Your task to perform on an android device: Search for "acer predator" on ebay, select the first entry, and add it to the cart. Image 0: 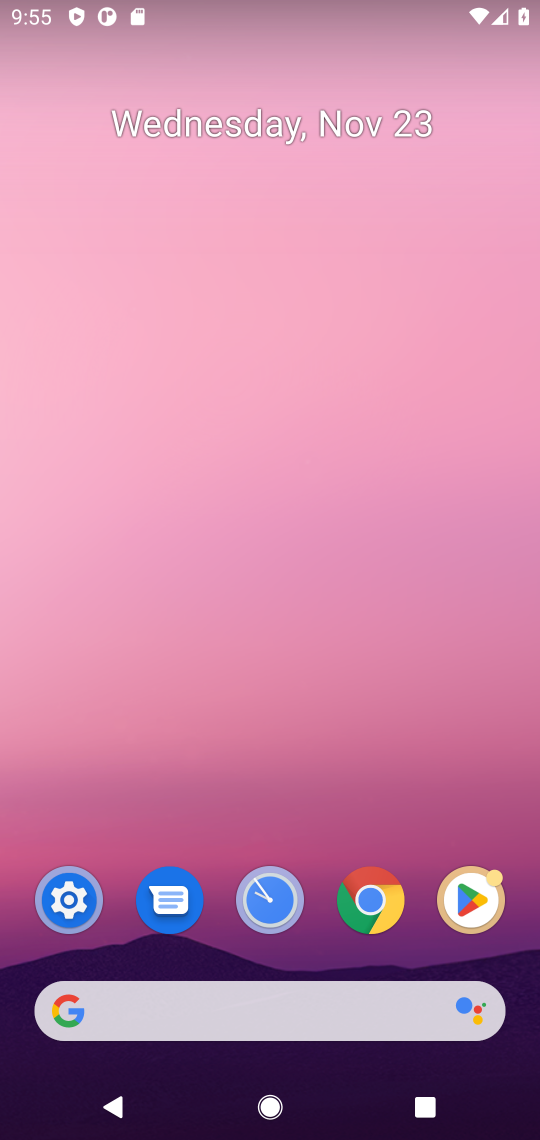
Step 0: click (286, 1007)
Your task to perform on an android device: Search for "acer predator" on ebay, select the first entry, and add it to the cart. Image 1: 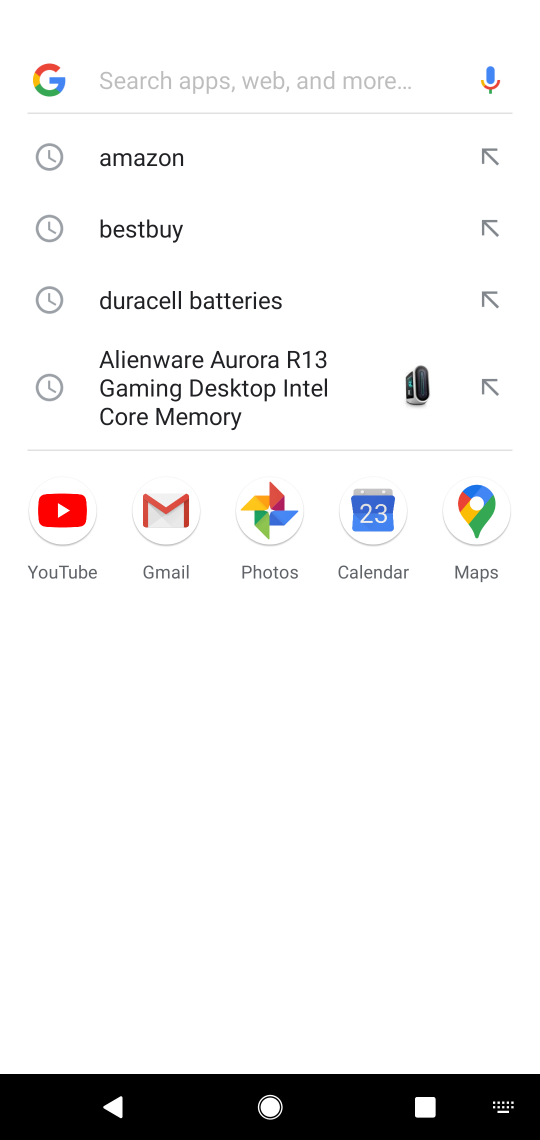
Step 1: type "ebay.com"
Your task to perform on an android device: Search for "acer predator" on ebay, select the first entry, and add it to the cart. Image 2: 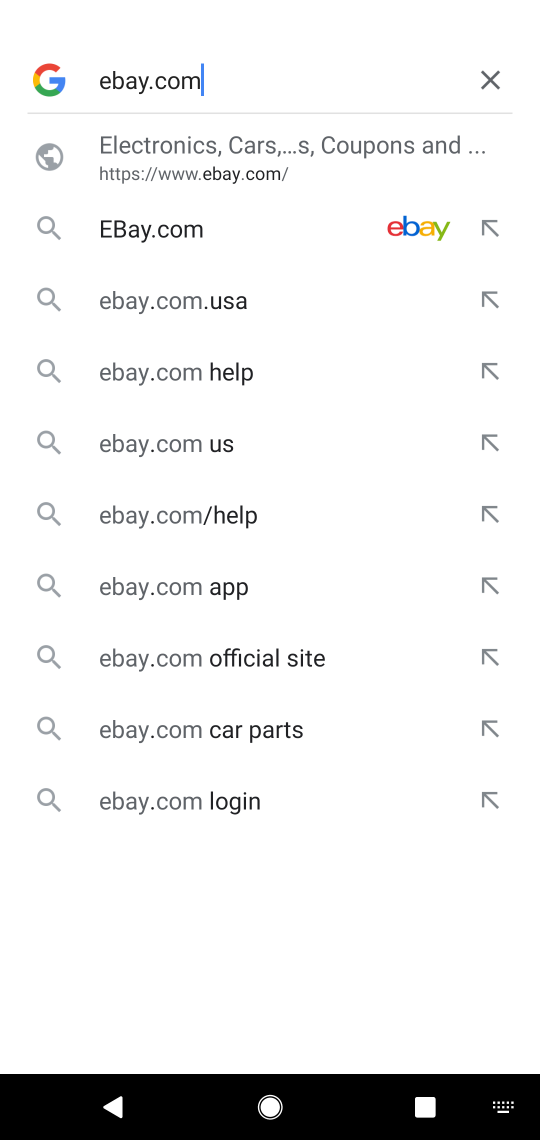
Step 2: click (205, 176)
Your task to perform on an android device: Search for "acer predator" on ebay, select the first entry, and add it to the cart. Image 3: 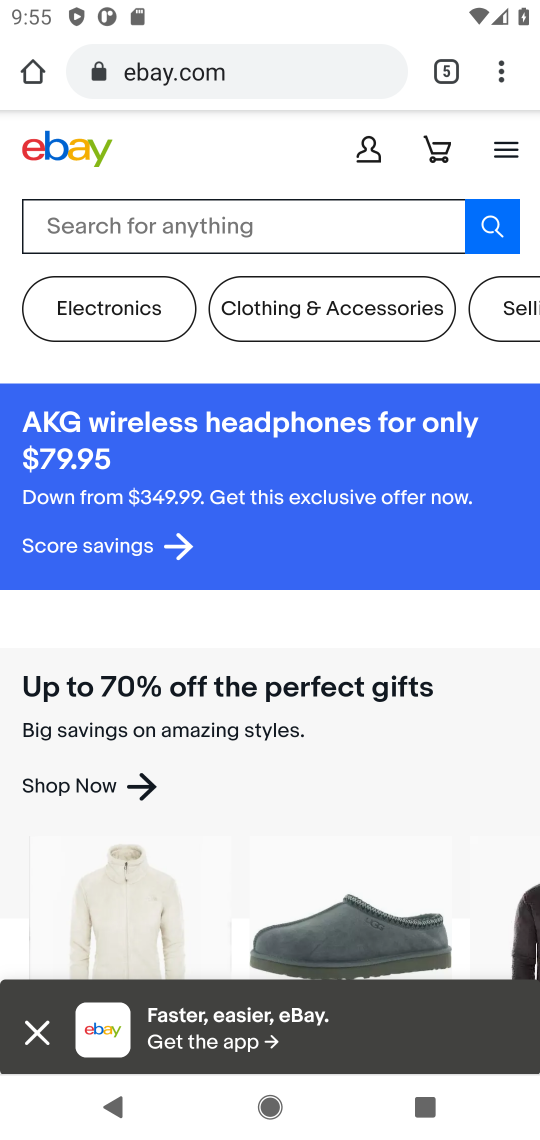
Step 3: click (182, 238)
Your task to perform on an android device: Search for "acer predator" on ebay, select the first entry, and add it to the cart. Image 4: 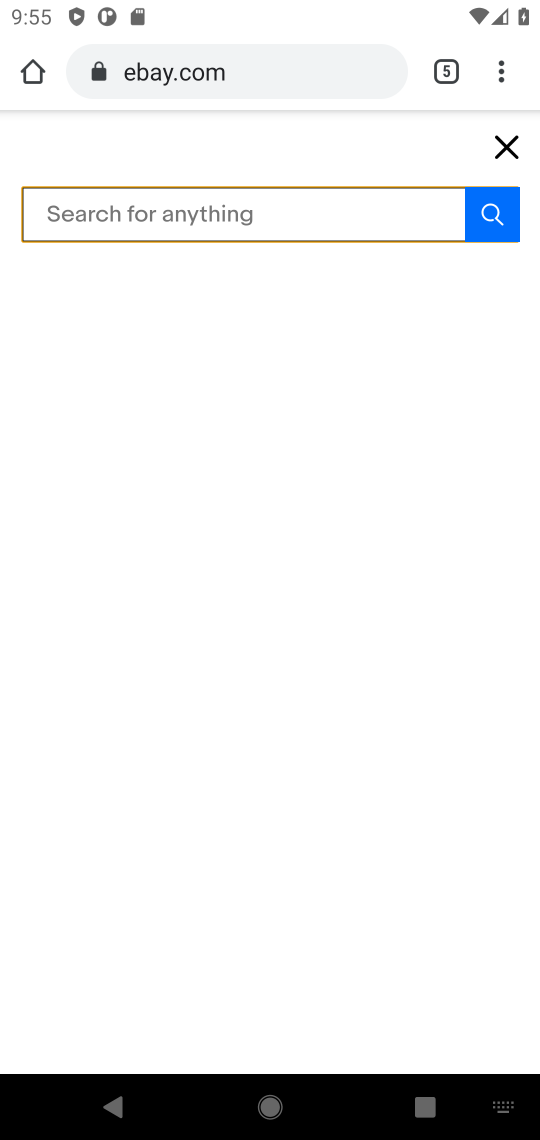
Step 4: type "acer predator"
Your task to perform on an android device: Search for "acer predator" on ebay, select the first entry, and add it to the cart. Image 5: 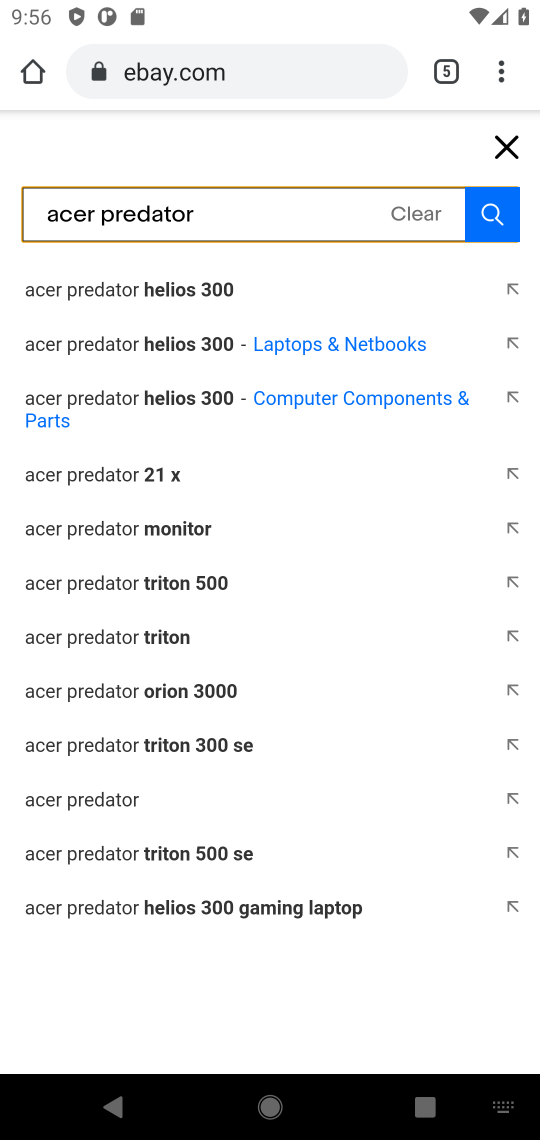
Step 5: click (211, 291)
Your task to perform on an android device: Search for "acer predator" on ebay, select the first entry, and add it to the cart. Image 6: 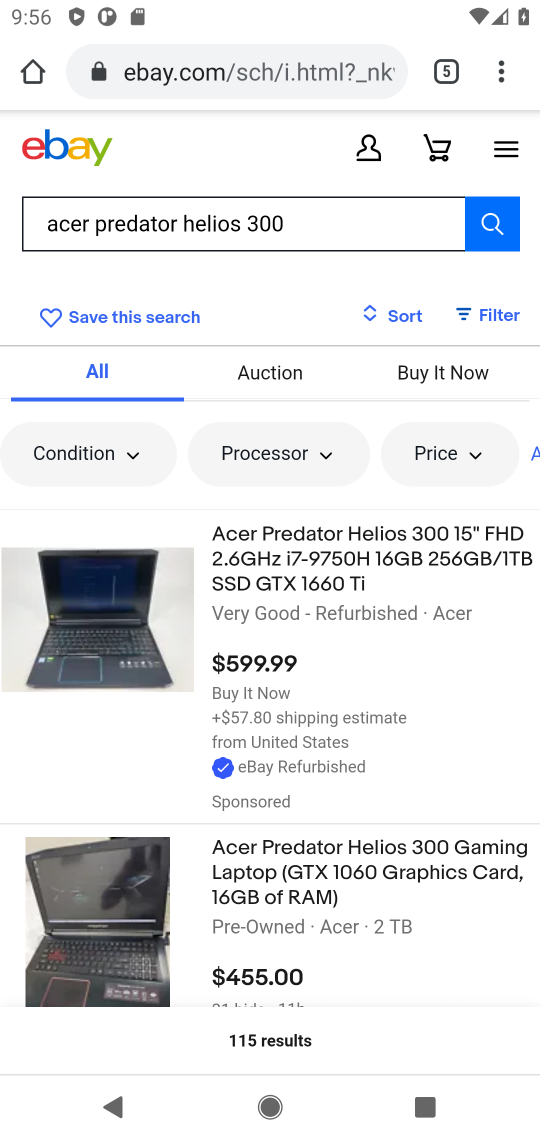
Step 6: click (248, 549)
Your task to perform on an android device: Search for "acer predator" on ebay, select the first entry, and add it to the cart. Image 7: 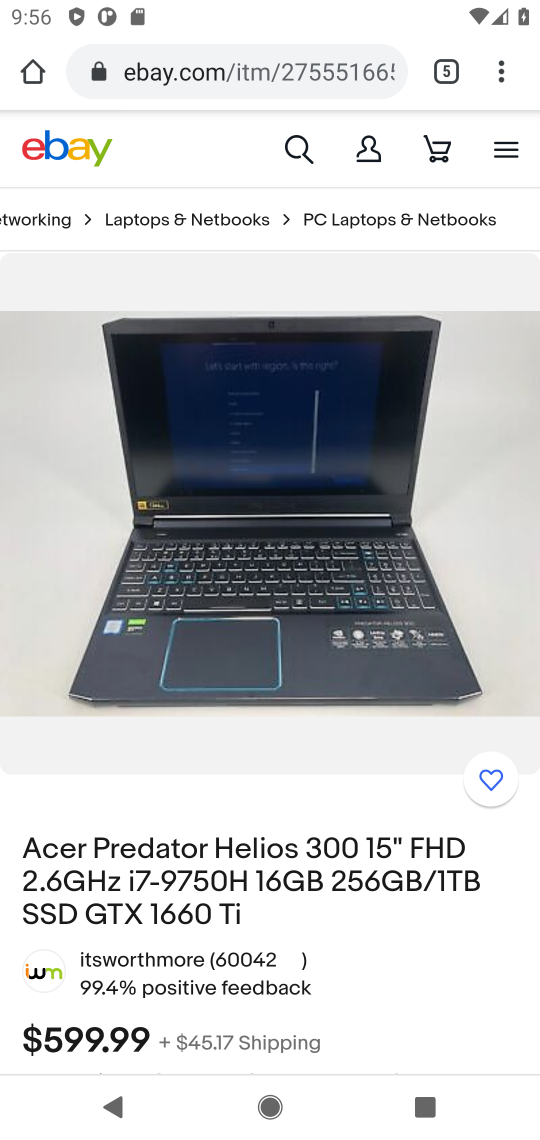
Step 7: drag from (281, 922) to (264, 326)
Your task to perform on an android device: Search for "acer predator" on ebay, select the first entry, and add it to the cart. Image 8: 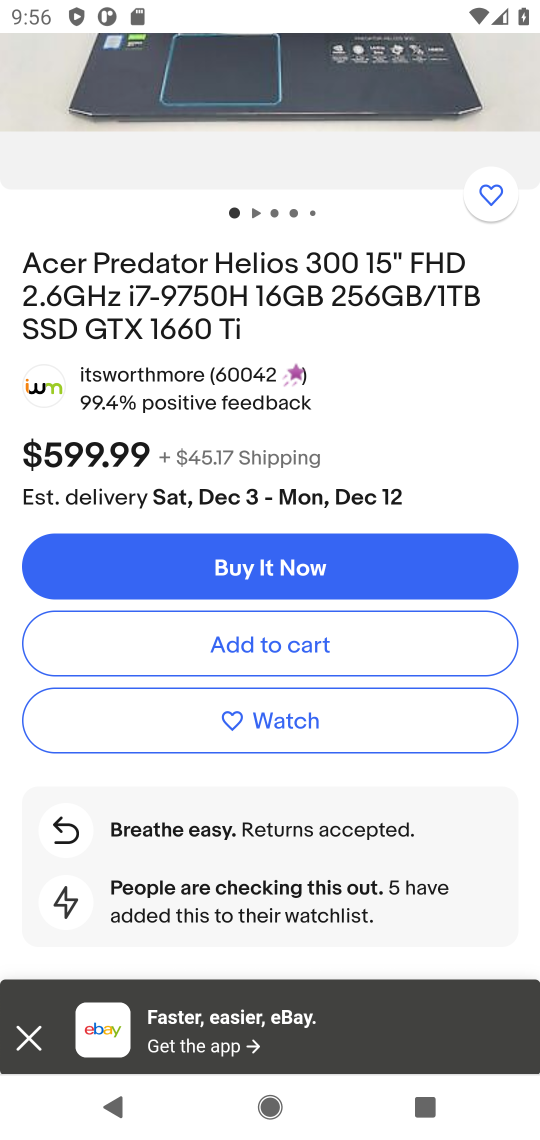
Step 8: click (341, 656)
Your task to perform on an android device: Search for "acer predator" on ebay, select the first entry, and add it to the cart. Image 9: 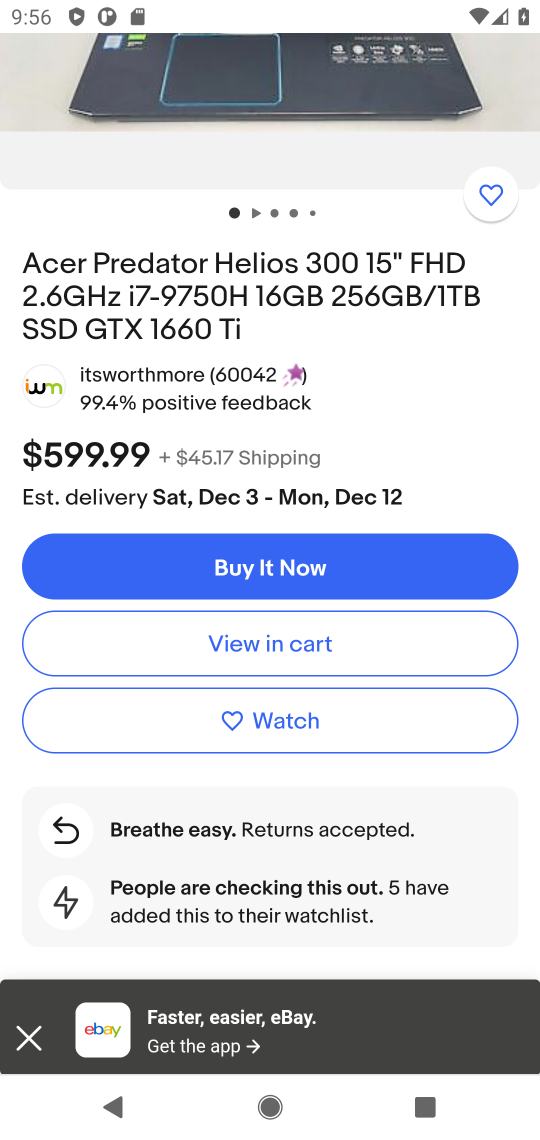
Step 9: task complete